Your task to perform on an android device: change your default location settings in chrome Image 0: 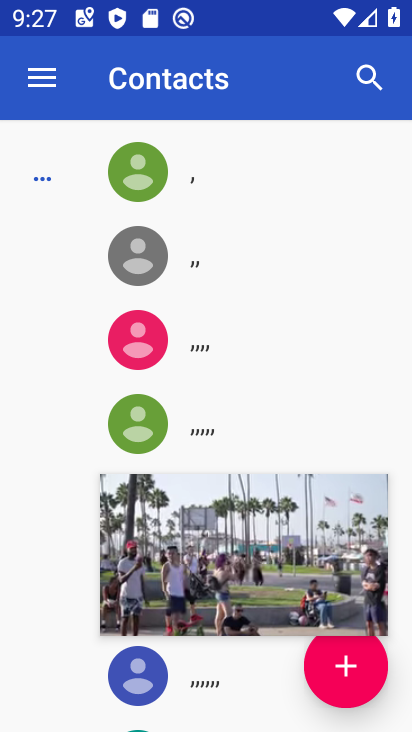
Step 0: click (364, 498)
Your task to perform on an android device: change your default location settings in chrome Image 1: 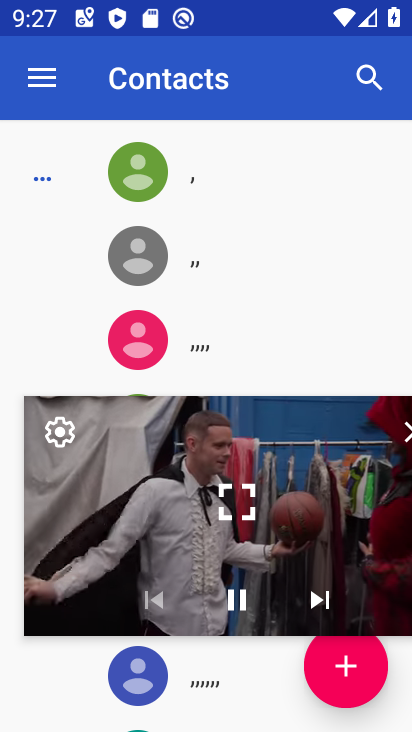
Step 1: click (392, 413)
Your task to perform on an android device: change your default location settings in chrome Image 2: 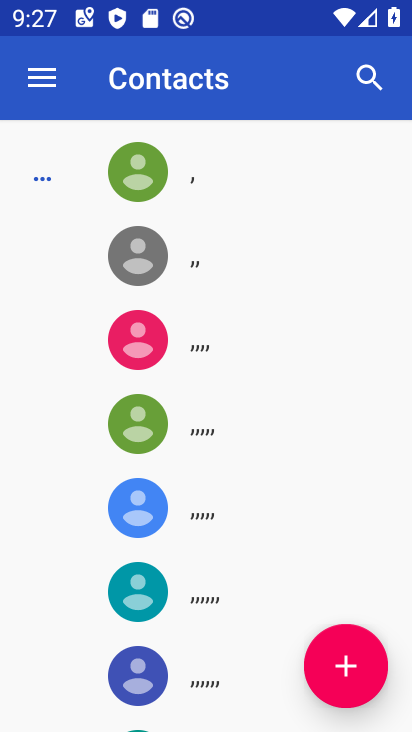
Step 2: press home button
Your task to perform on an android device: change your default location settings in chrome Image 3: 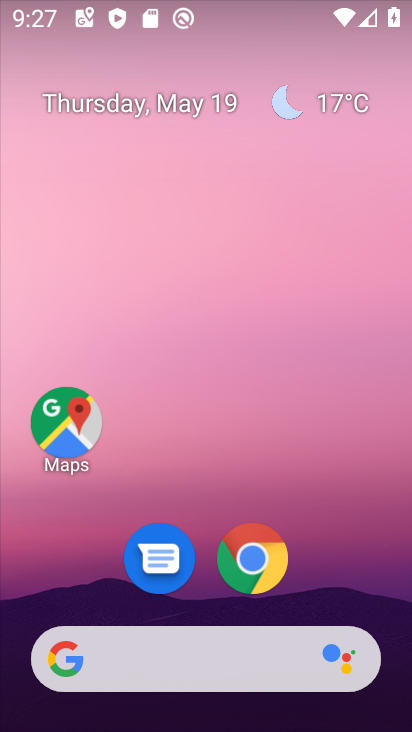
Step 3: click (260, 560)
Your task to perform on an android device: change your default location settings in chrome Image 4: 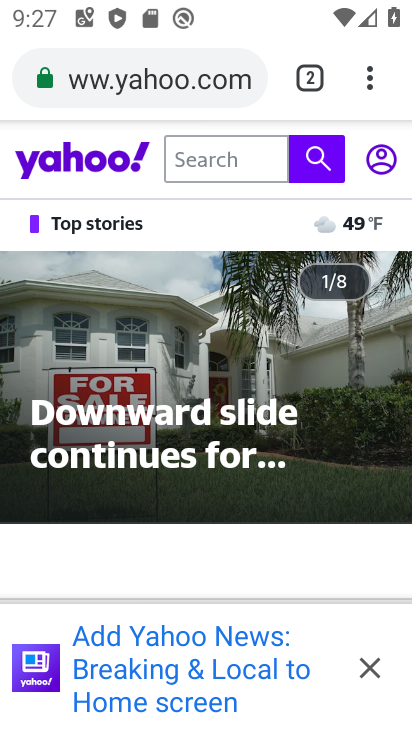
Step 4: click (372, 86)
Your task to perform on an android device: change your default location settings in chrome Image 5: 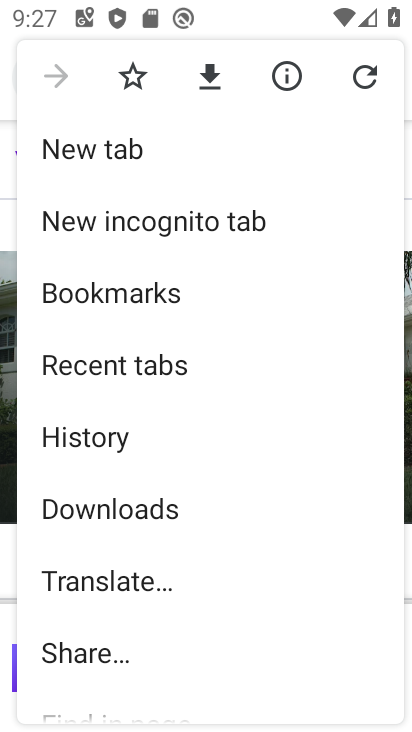
Step 5: drag from (104, 637) to (100, 237)
Your task to perform on an android device: change your default location settings in chrome Image 6: 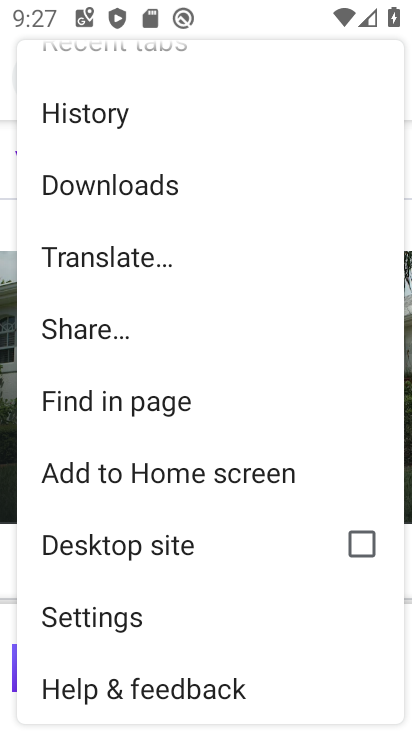
Step 6: click (89, 617)
Your task to perform on an android device: change your default location settings in chrome Image 7: 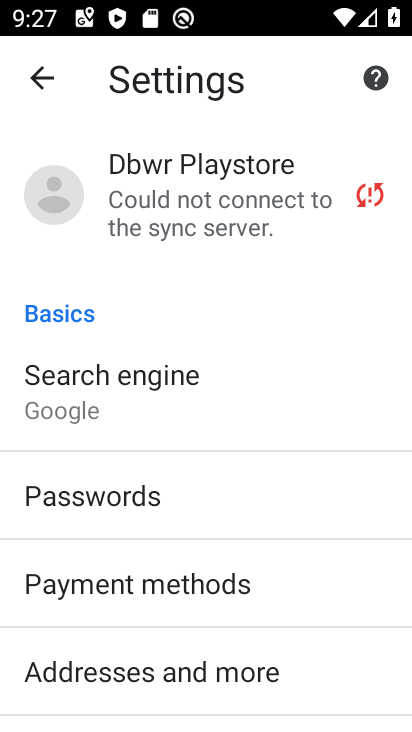
Step 7: drag from (109, 645) to (110, 399)
Your task to perform on an android device: change your default location settings in chrome Image 8: 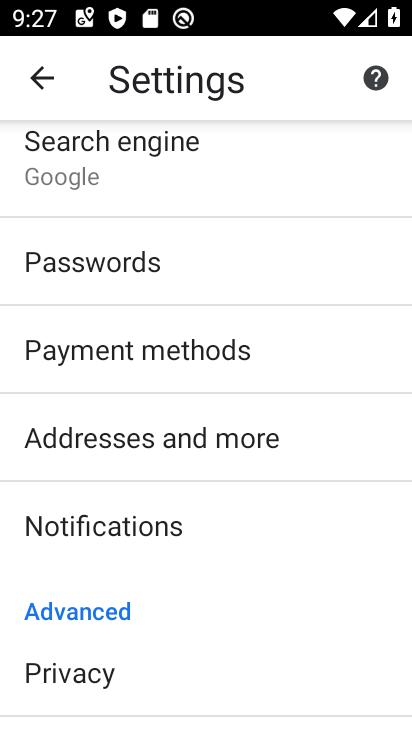
Step 8: drag from (120, 669) to (127, 394)
Your task to perform on an android device: change your default location settings in chrome Image 9: 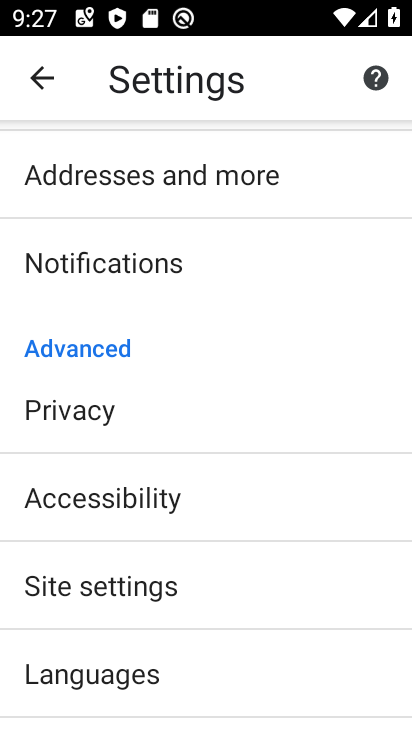
Step 9: drag from (126, 652) to (133, 371)
Your task to perform on an android device: change your default location settings in chrome Image 10: 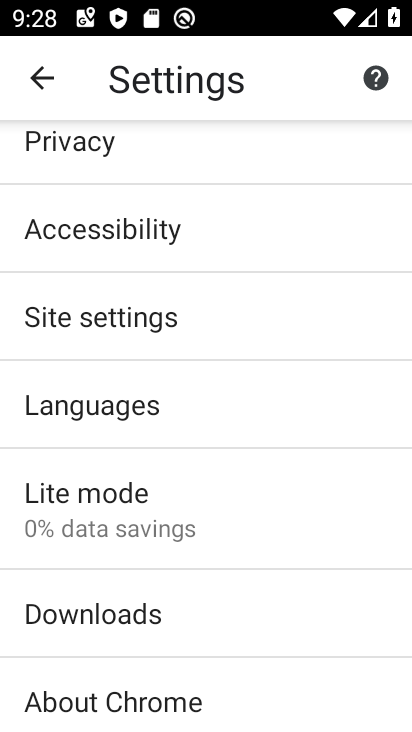
Step 10: click (104, 318)
Your task to perform on an android device: change your default location settings in chrome Image 11: 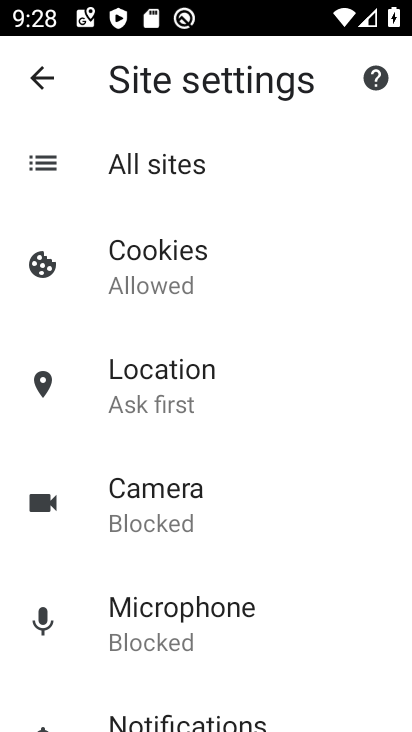
Step 11: click (161, 384)
Your task to perform on an android device: change your default location settings in chrome Image 12: 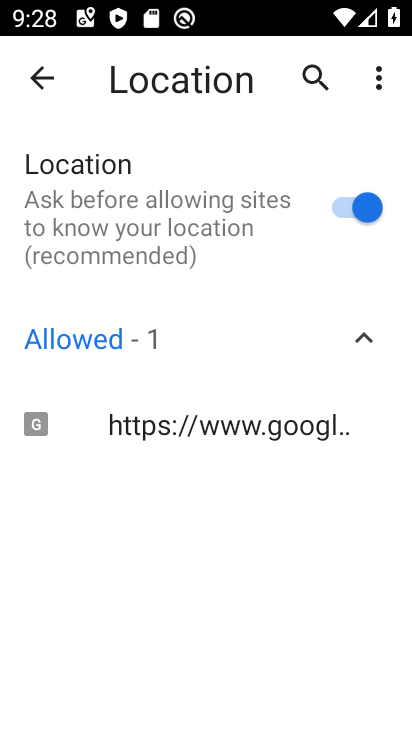
Step 12: click (348, 211)
Your task to perform on an android device: change your default location settings in chrome Image 13: 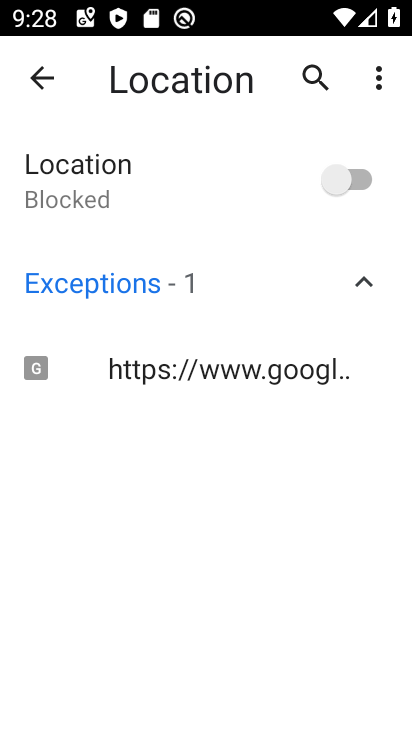
Step 13: task complete